Your task to perform on an android device: change the clock display to analog Image 0: 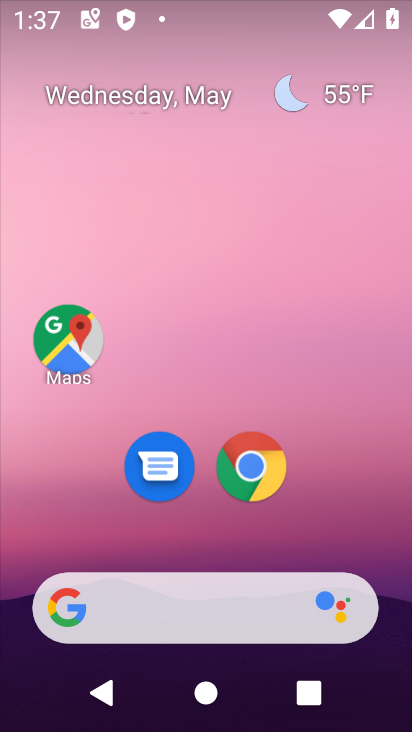
Step 0: drag from (259, 528) to (158, 49)
Your task to perform on an android device: change the clock display to analog Image 1: 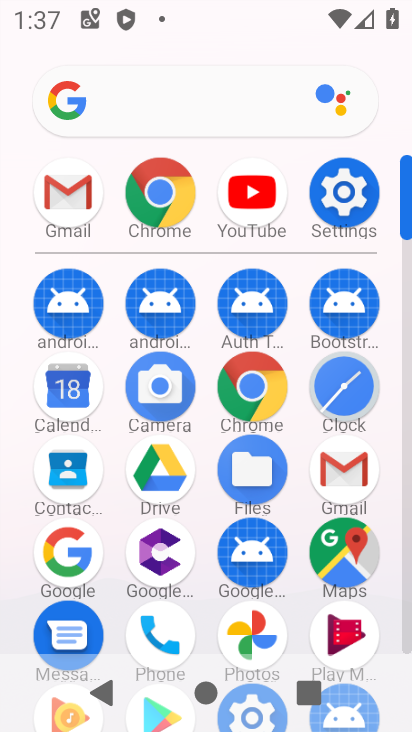
Step 1: click (343, 383)
Your task to perform on an android device: change the clock display to analog Image 2: 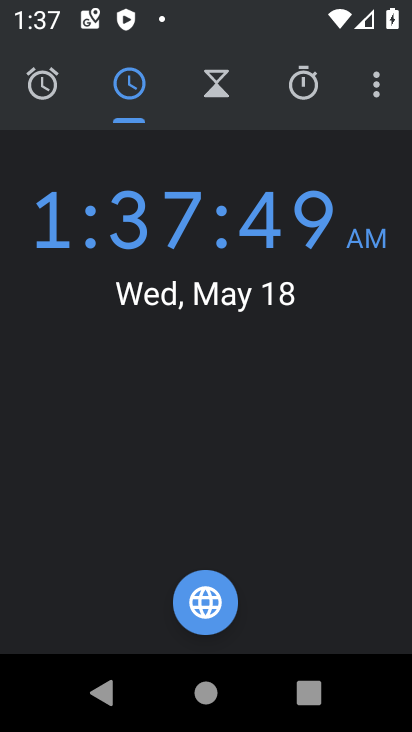
Step 2: click (361, 87)
Your task to perform on an android device: change the clock display to analog Image 3: 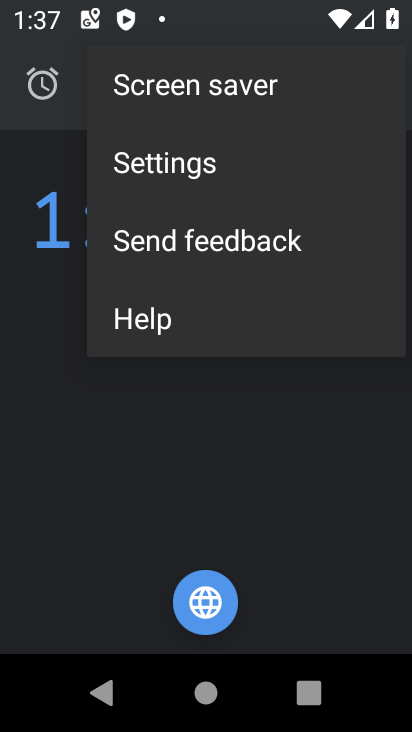
Step 3: click (155, 173)
Your task to perform on an android device: change the clock display to analog Image 4: 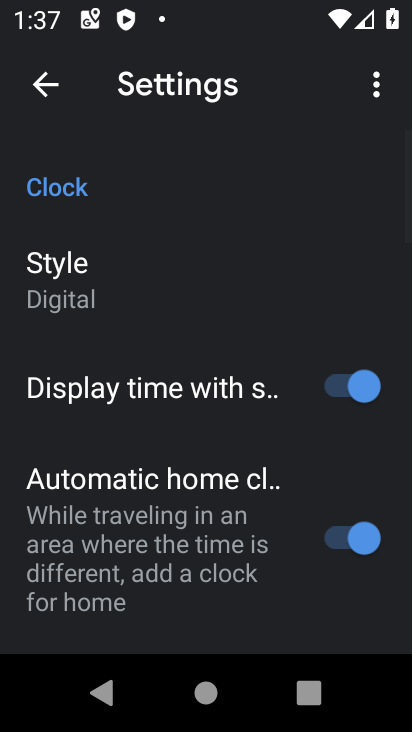
Step 4: click (54, 311)
Your task to perform on an android device: change the clock display to analog Image 5: 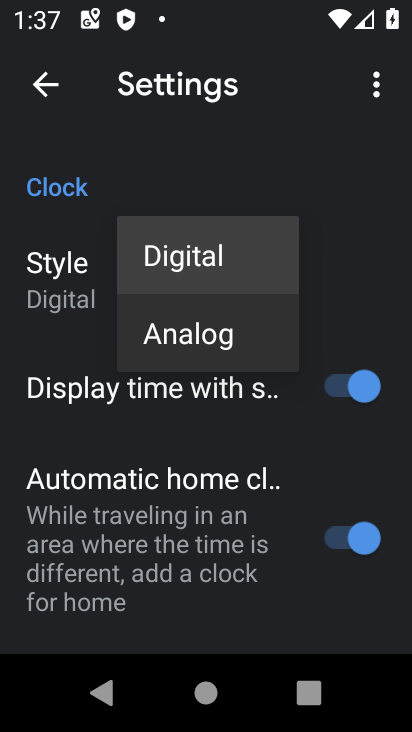
Step 5: click (324, 327)
Your task to perform on an android device: change the clock display to analog Image 6: 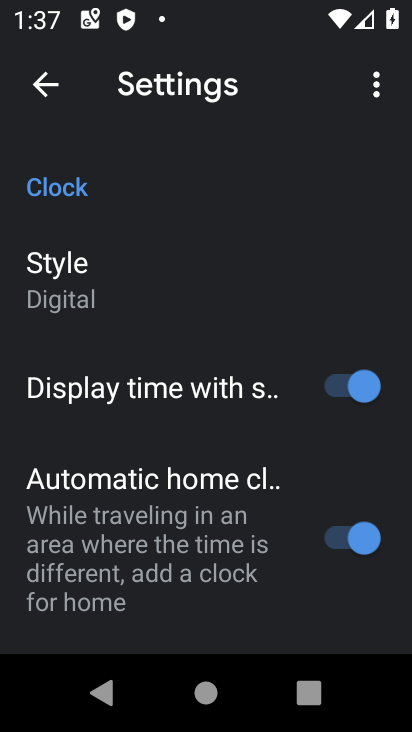
Step 6: click (276, 327)
Your task to perform on an android device: change the clock display to analog Image 7: 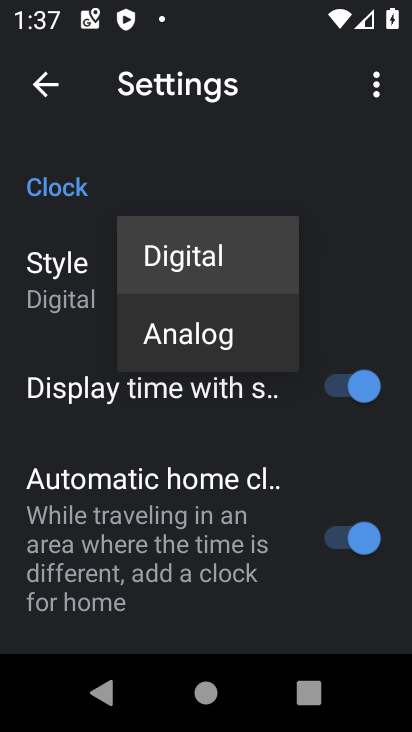
Step 7: click (241, 303)
Your task to perform on an android device: change the clock display to analog Image 8: 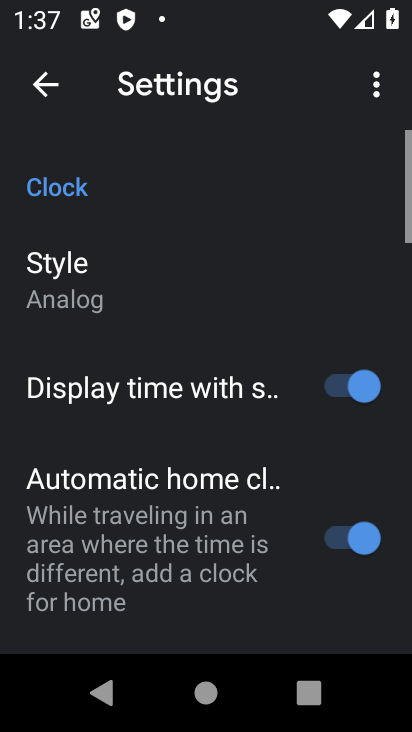
Step 8: click (221, 333)
Your task to perform on an android device: change the clock display to analog Image 9: 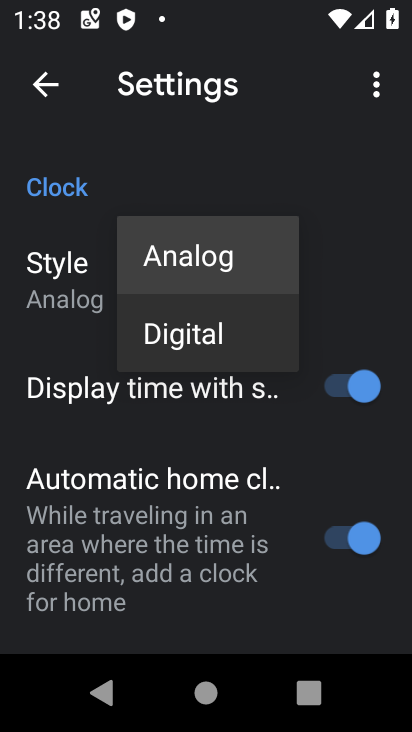
Step 9: click (256, 251)
Your task to perform on an android device: change the clock display to analog Image 10: 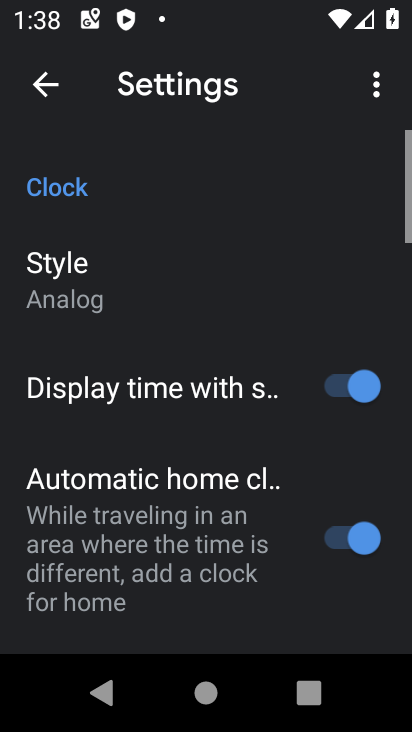
Step 10: task complete